Your task to perform on an android device: Set the phone to "Do not disturb". Image 0: 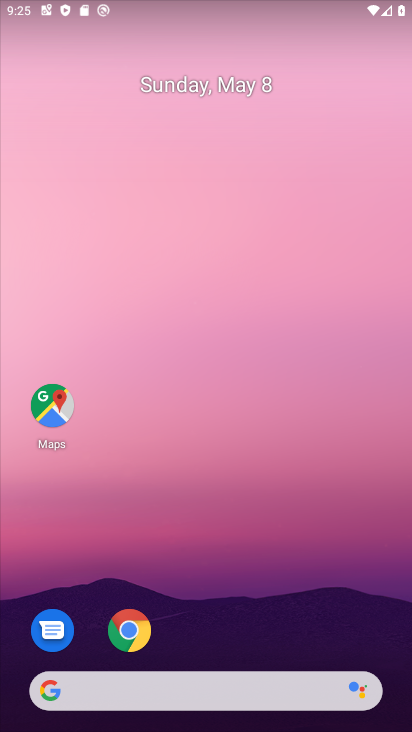
Step 0: drag from (154, 701) to (283, 237)
Your task to perform on an android device: Set the phone to "Do not disturb". Image 1: 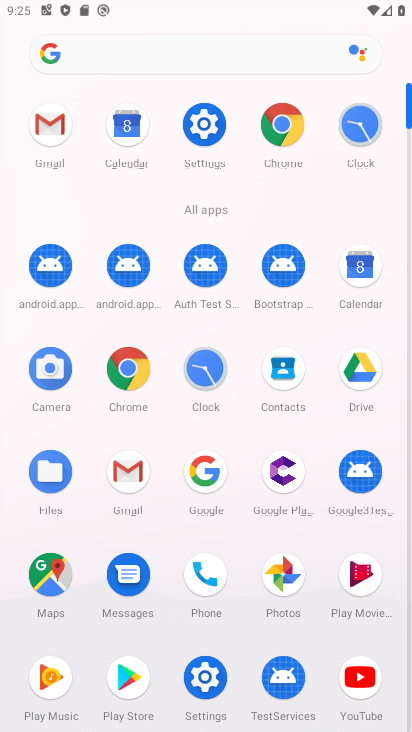
Step 1: click (204, 127)
Your task to perform on an android device: Set the phone to "Do not disturb". Image 2: 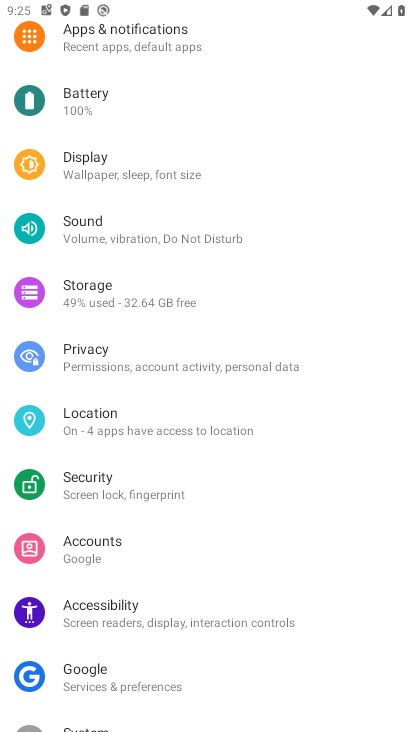
Step 2: click (162, 234)
Your task to perform on an android device: Set the phone to "Do not disturb". Image 3: 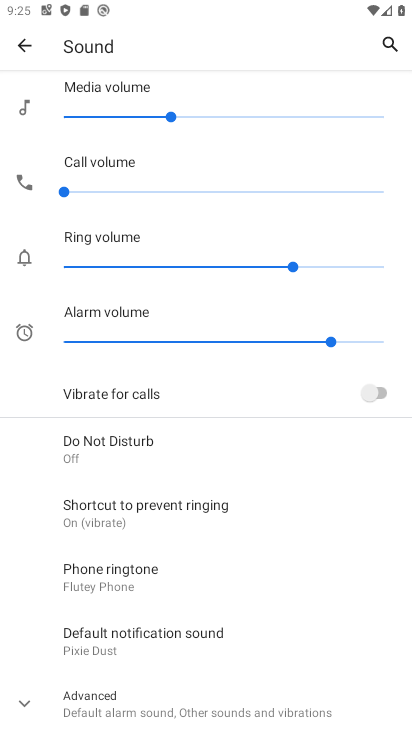
Step 3: click (96, 443)
Your task to perform on an android device: Set the phone to "Do not disturb". Image 4: 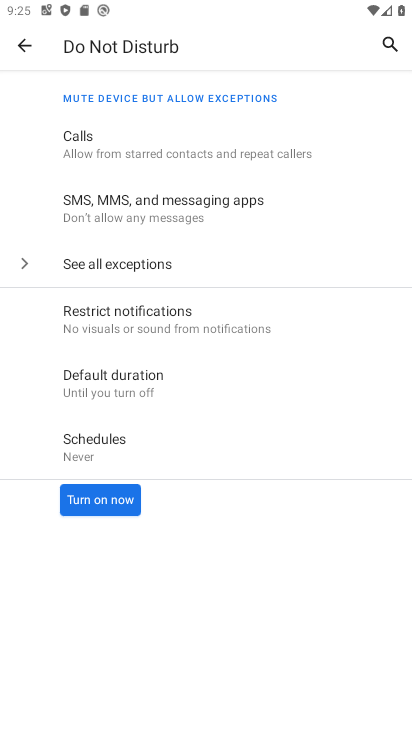
Step 4: click (112, 499)
Your task to perform on an android device: Set the phone to "Do not disturb". Image 5: 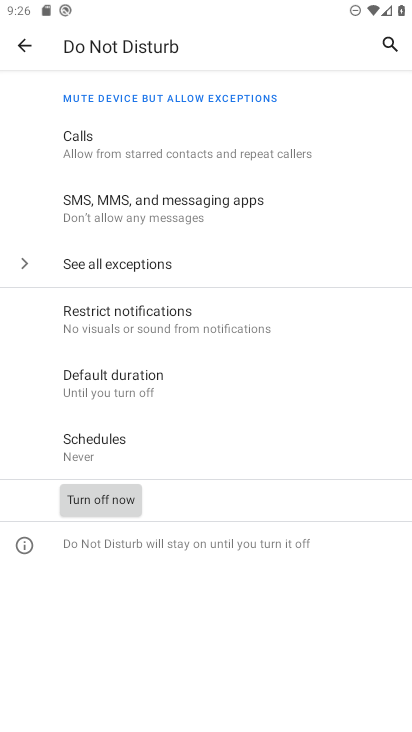
Step 5: task complete